Your task to perform on an android device: toggle show notifications on the lock screen Image 0: 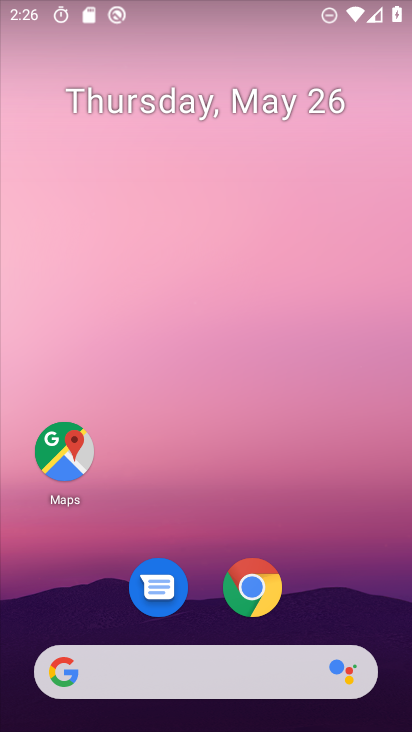
Step 0: drag from (286, 449) to (293, 128)
Your task to perform on an android device: toggle show notifications on the lock screen Image 1: 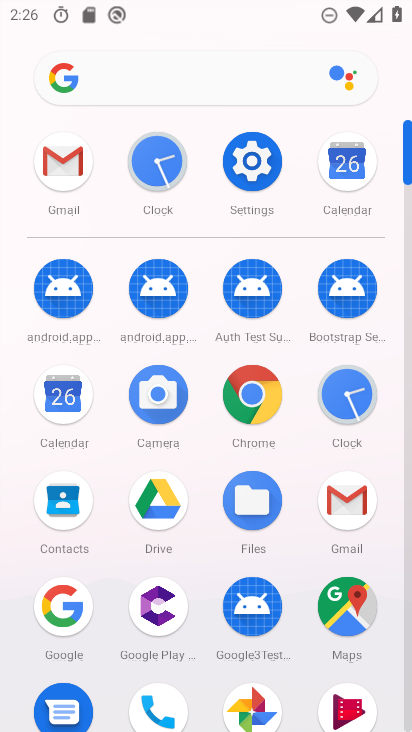
Step 1: click (251, 180)
Your task to perform on an android device: toggle show notifications on the lock screen Image 2: 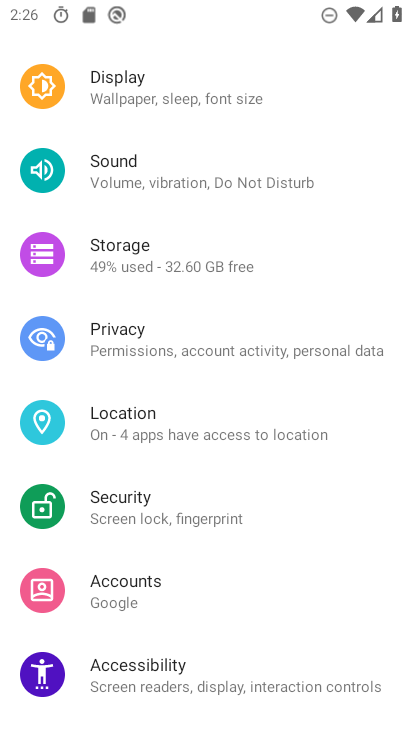
Step 2: drag from (206, 206) to (213, 489)
Your task to perform on an android device: toggle show notifications on the lock screen Image 3: 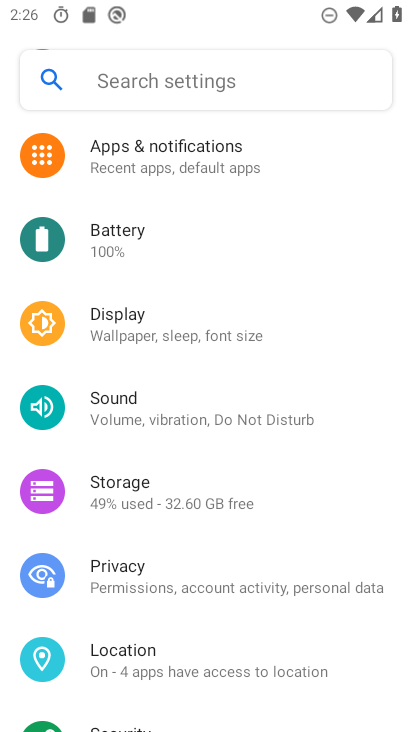
Step 3: click (217, 173)
Your task to perform on an android device: toggle show notifications on the lock screen Image 4: 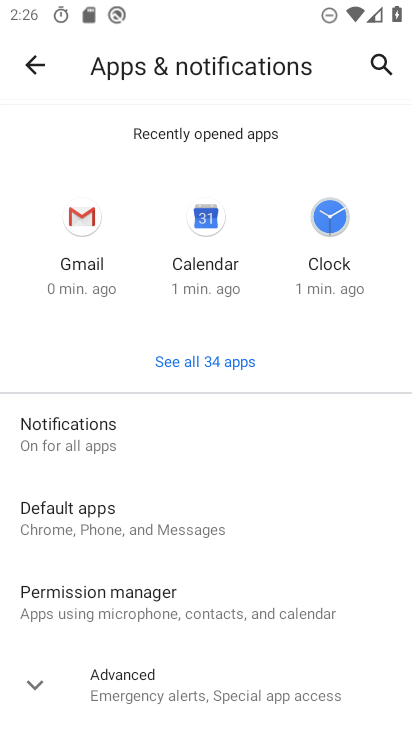
Step 4: click (162, 428)
Your task to perform on an android device: toggle show notifications on the lock screen Image 5: 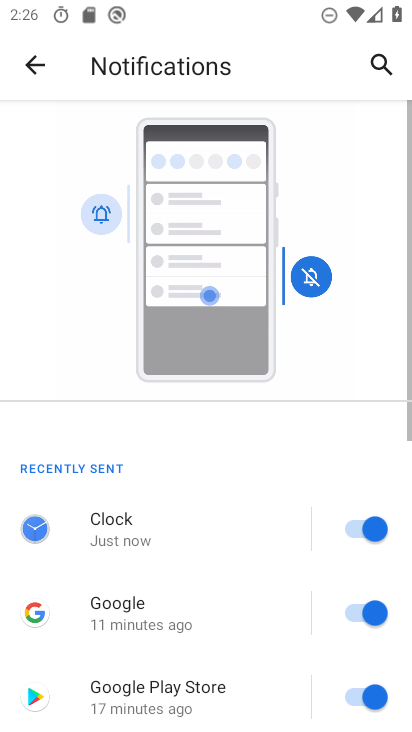
Step 5: drag from (198, 496) to (282, 83)
Your task to perform on an android device: toggle show notifications on the lock screen Image 6: 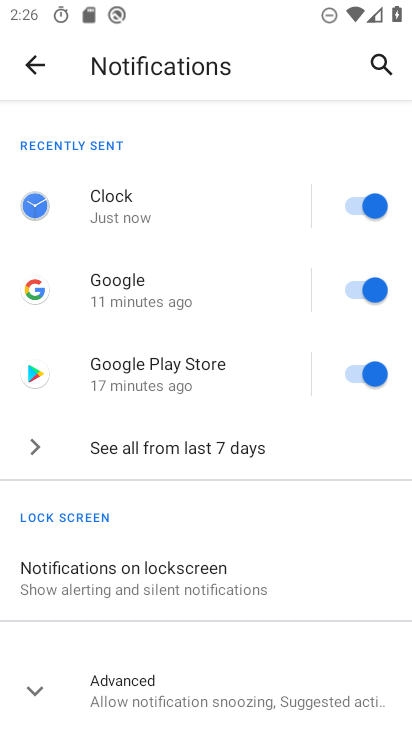
Step 6: click (204, 587)
Your task to perform on an android device: toggle show notifications on the lock screen Image 7: 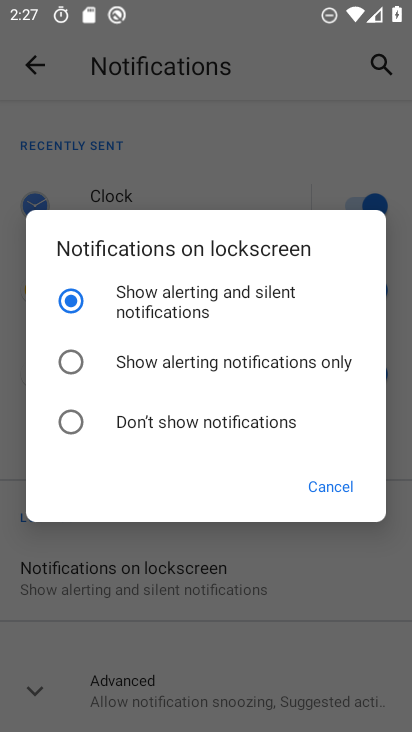
Step 7: click (164, 372)
Your task to perform on an android device: toggle show notifications on the lock screen Image 8: 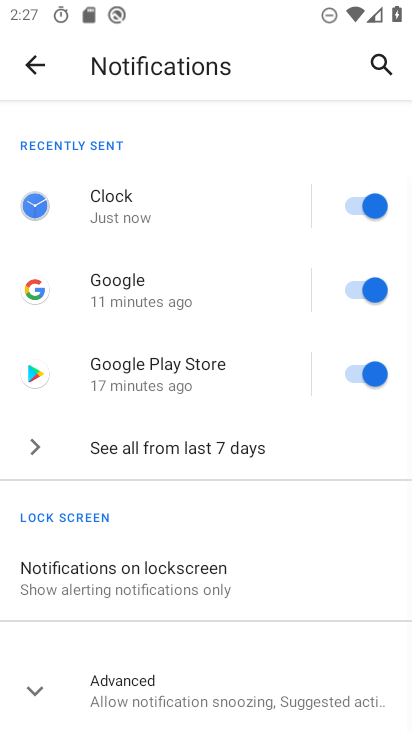
Step 8: task complete